Your task to perform on an android device: What is the recent news? Image 0: 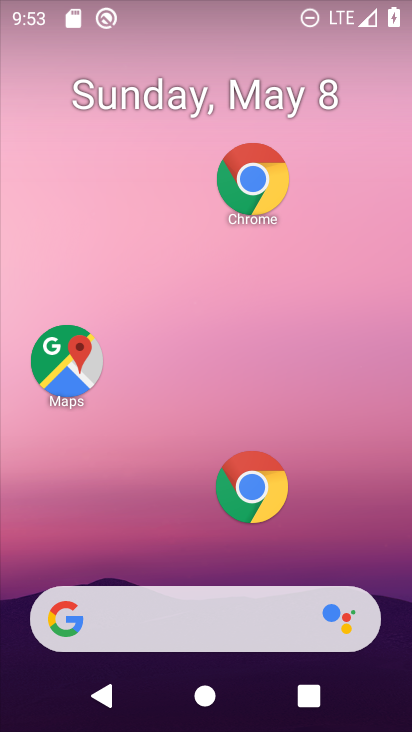
Step 0: click (249, 597)
Your task to perform on an android device: What is the recent news? Image 1: 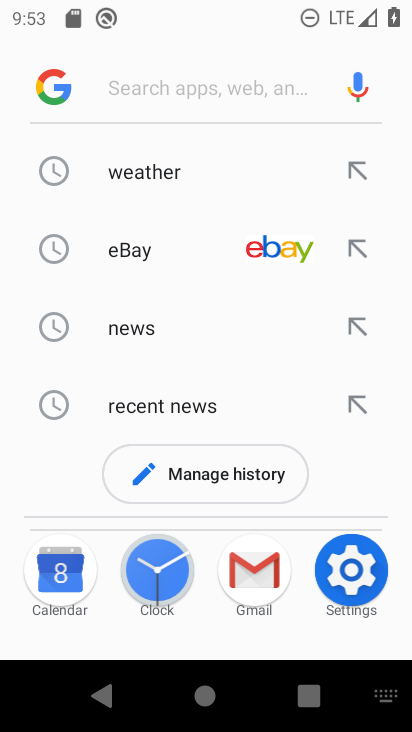
Step 1: click (152, 335)
Your task to perform on an android device: What is the recent news? Image 2: 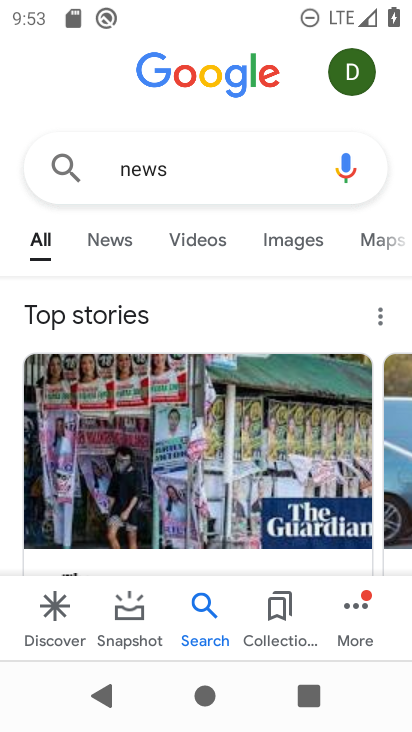
Step 2: click (114, 235)
Your task to perform on an android device: What is the recent news? Image 3: 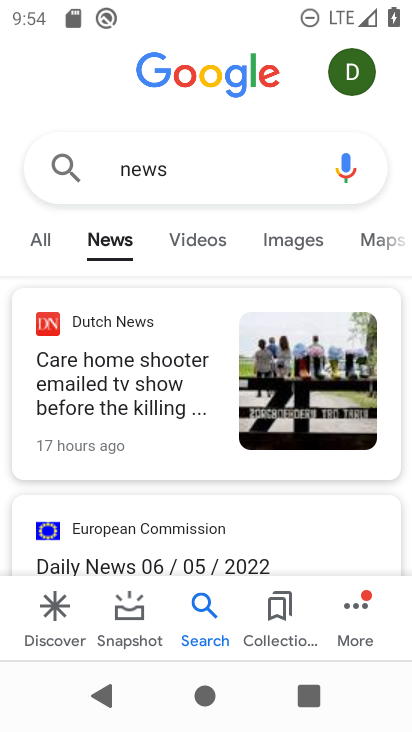
Step 3: task complete